Your task to perform on an android device: Check the weather Image 0: 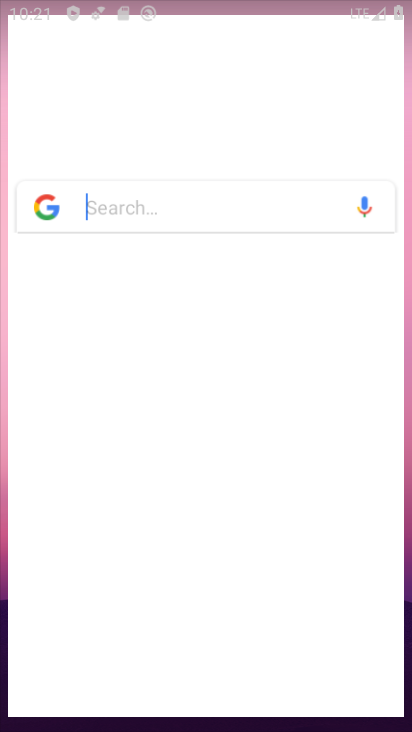
Step 0: drag from (259, 625) to (256, 226)
Your task to perform on an android device: Check the weather Image 1: 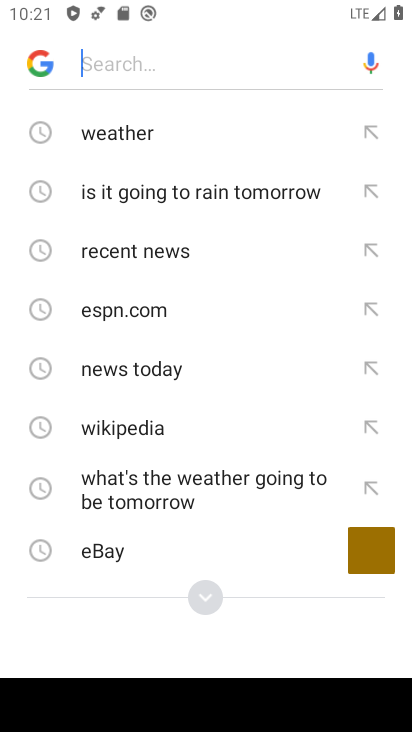
Step 1: press home button
Your task to perform on an android device: Check the weather Image 2: 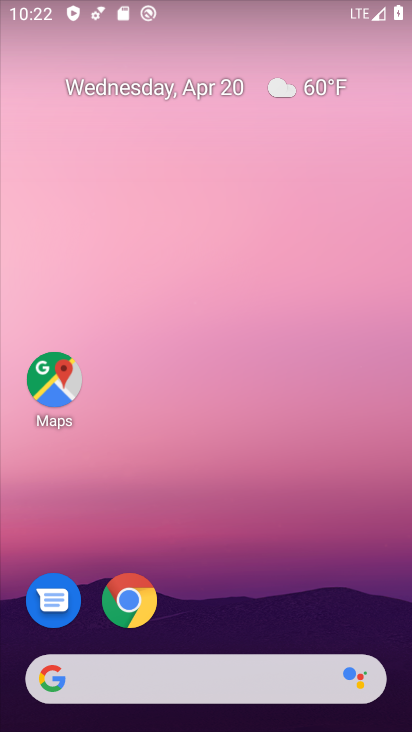
Step 2: drag from (288, 641) to (278, 181)
Your task to perform on an android device: Check the weather Image 3: 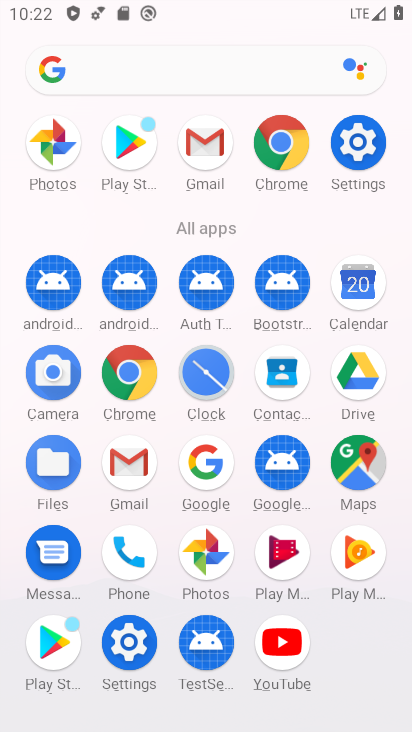
Step 3: click (139, 376)
Your task to perform on an android device: Check the weather Image 4: 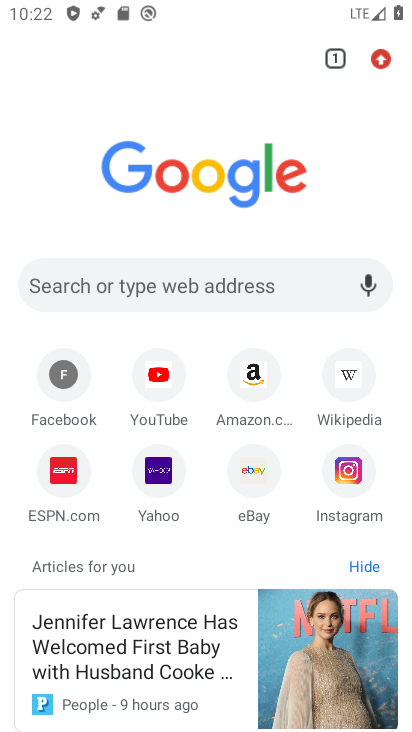
Step 4: click (175, 278)
Your task to perform on an android device: Check the weather Image 5: 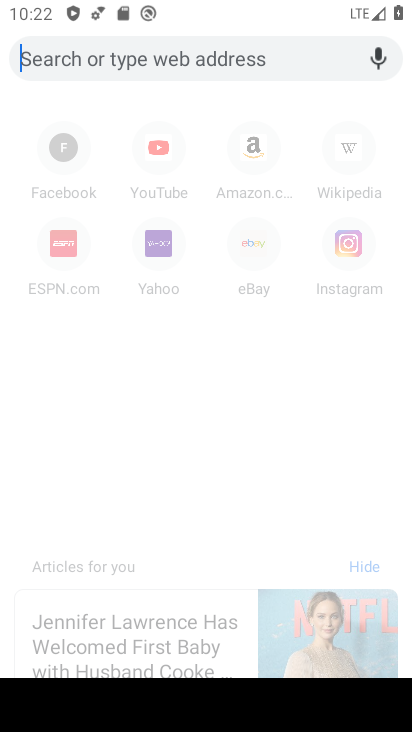
Step 5: type "weather"
Your task to perform on an android device: Check the weather Image 6: 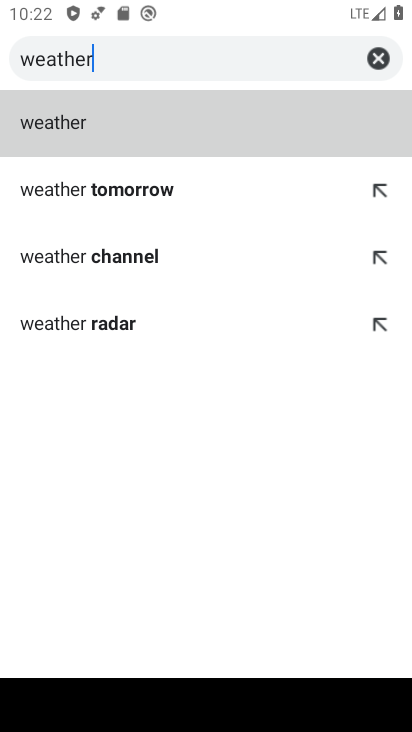
Step 6: click (65, 127)
Your task to perform on an android device: Check the weather Image 7: 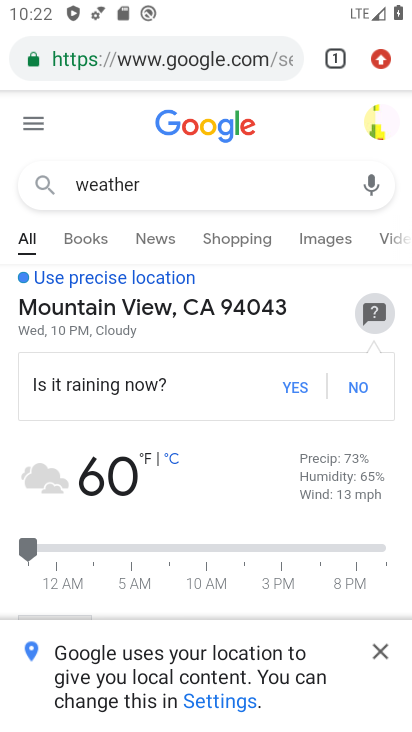
Step 7: task complete